Your task to perform on an android device: What's the weather going to be tomorrow? Image 0: 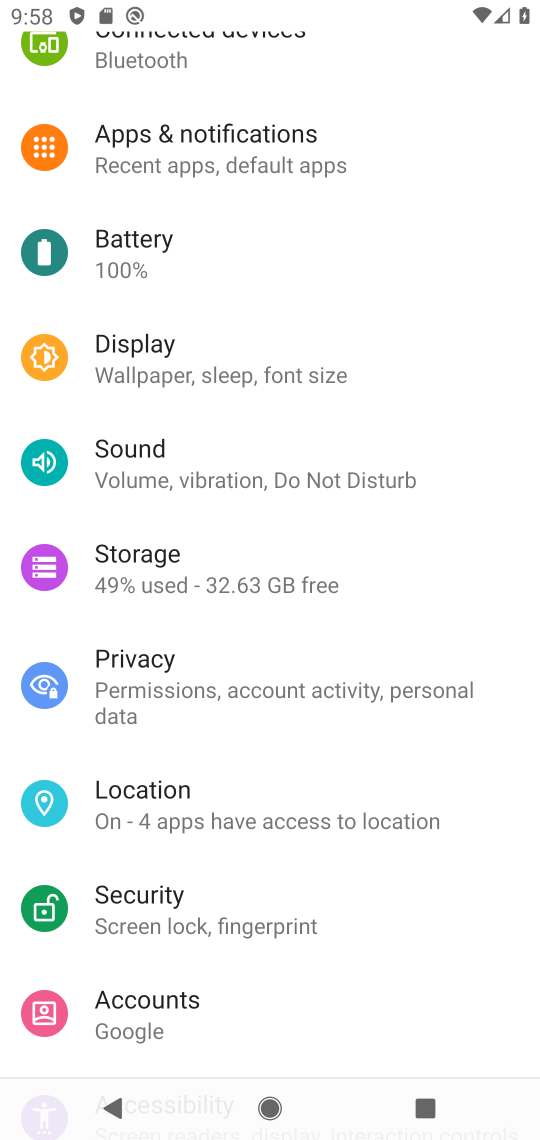
Step 0: press home button
Your task to perform on an android device: What's the weather going to be tomorrow? Image 1: 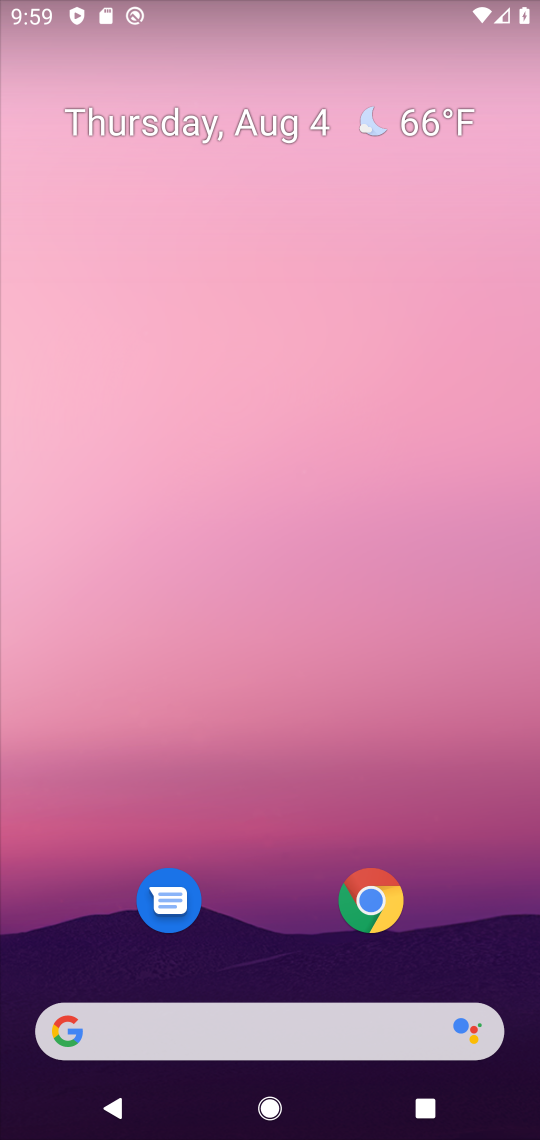
Step 1: drag from (482, 947) to (380, 205)
Your task to perform on an android device: What's the weather going to be tomorrow? Image 2: 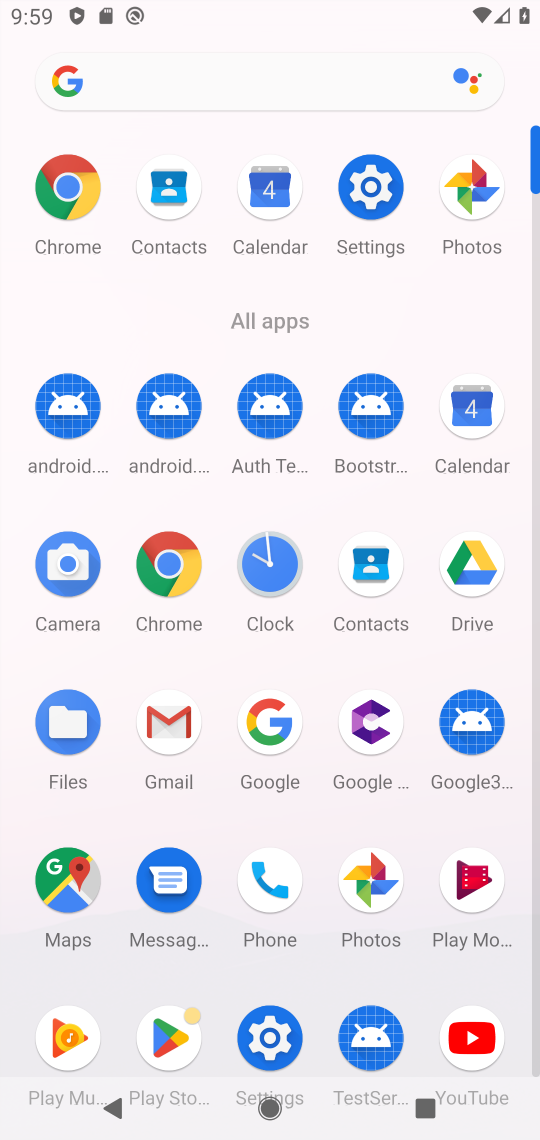
Step 2: click (66, 181)
Your task to perform on an android device: What's the weather going to be tomorrow? Image 3: 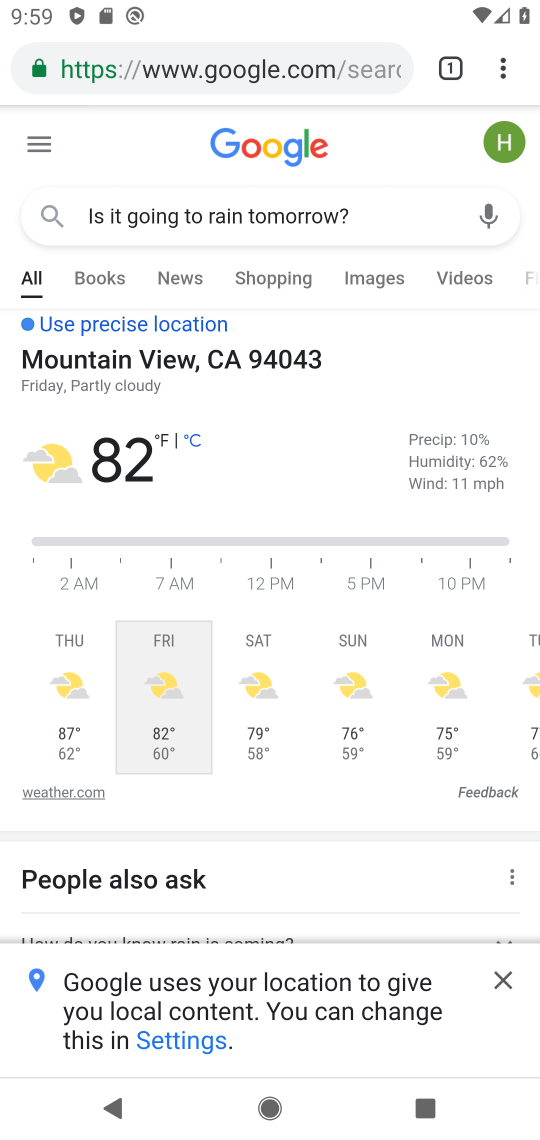
Step 3: click (300, 55)
Your task to perform on an android device: What's the weather going to be tomorrow? Image 4: 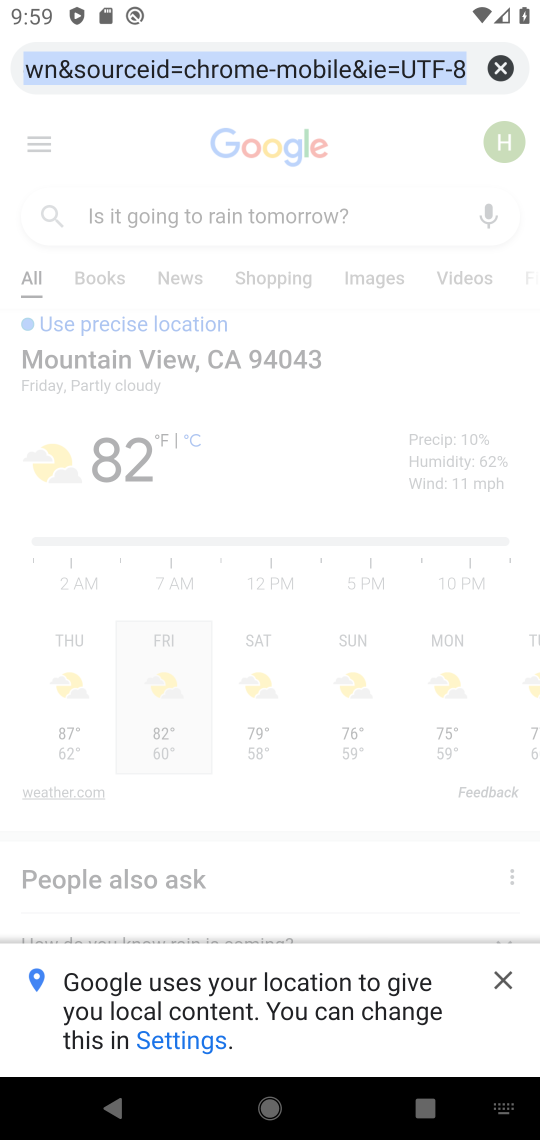
Step 4: type "What's the weather going to be tomorrow?"
Your task to perform on an android device: What's the weather going to be tomorrow? Image 5: 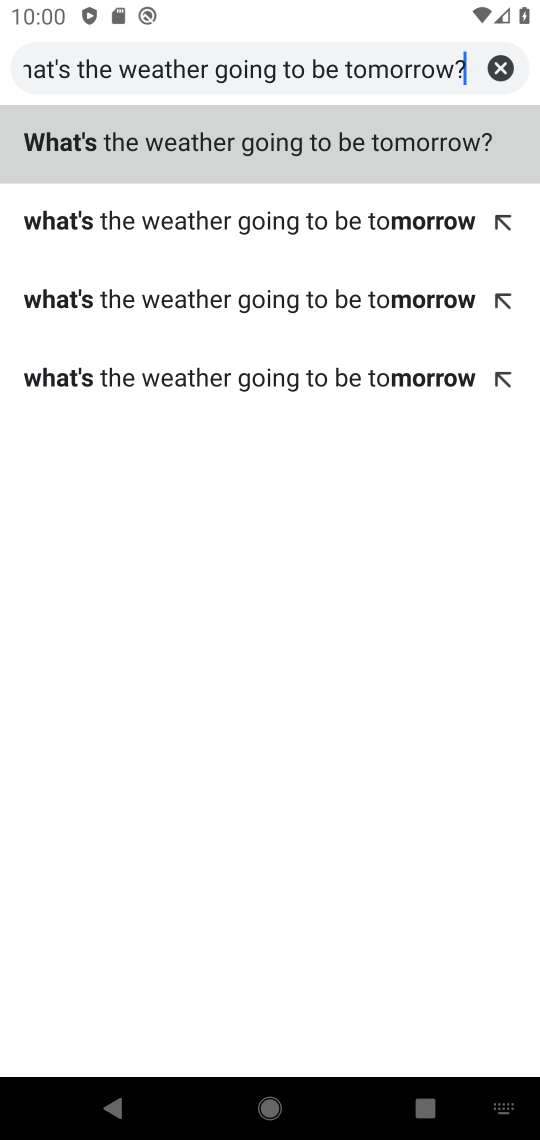
Step 5: click (342, 157)
Your task to perform on an android device: What's the weather going to be tomorrow? Image 6: 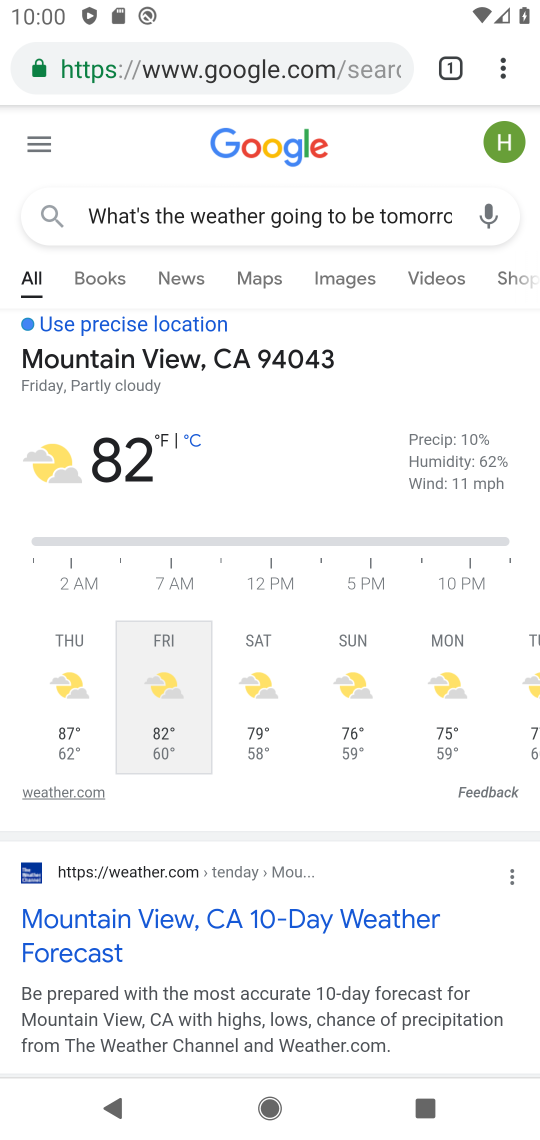
Step 6: task complete